Your task to perform on an android device: see tabs open on other devices in the chrome app Image 0: 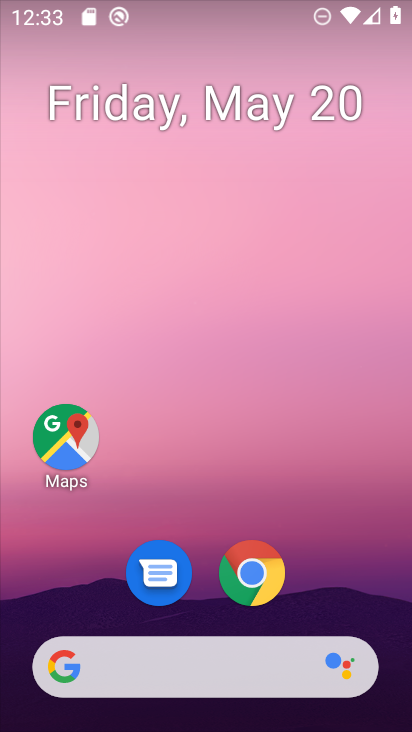
Step 0: click (250, 580)
Your task to perform on an android device: see tabs open on other devices in the chrome app Image 1: 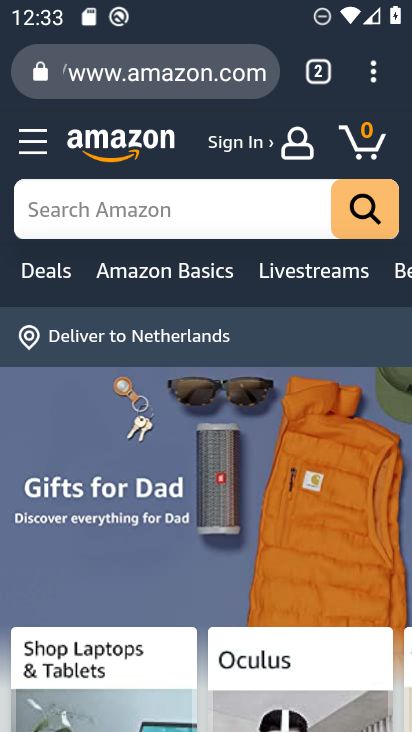
Step 1: click (374, 81)
Your task to perform on an android device: see tabs open on other devices in the chrome app Image 2: 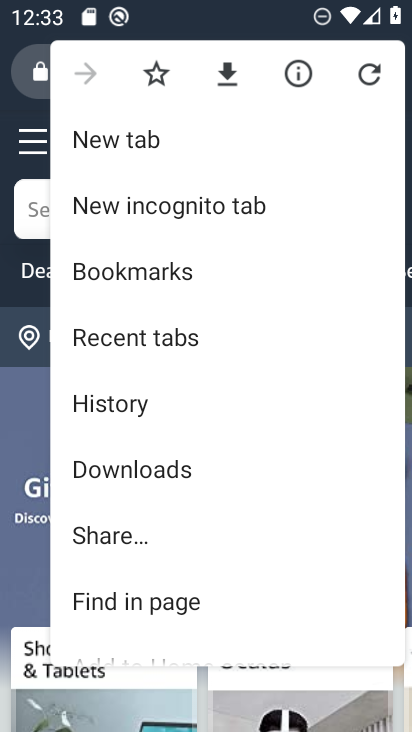
Step 2: click (138, 333)
Your task to perform on an android device: see tabs open on other devices in the chrome app Image 3: 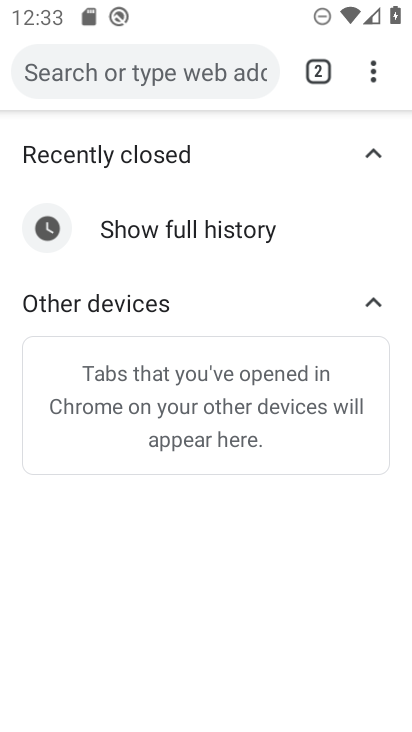
Step 3: task complete